Your task to perform on an android device: Open internet settings Image 0: 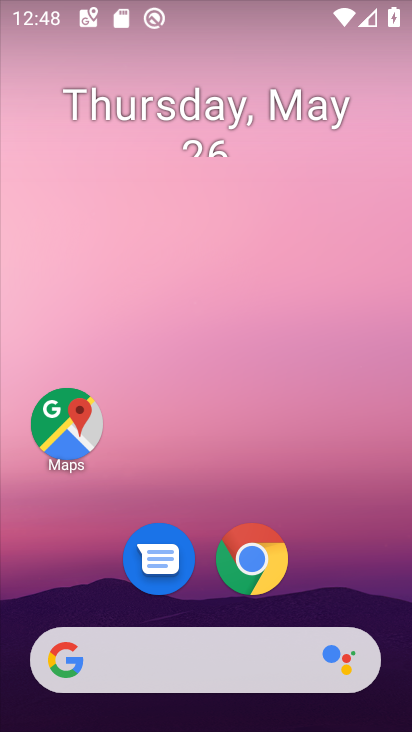
Step 0: press home button
Your task to perform on an android device: Open internet settings Image 1: 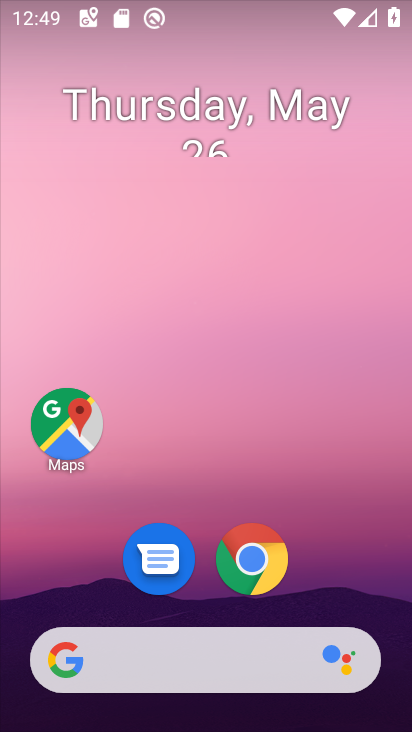
Step 1: drag from (322, 602) to (281, 0)
Your task to perform on an android device: Open internet settings Image 2: 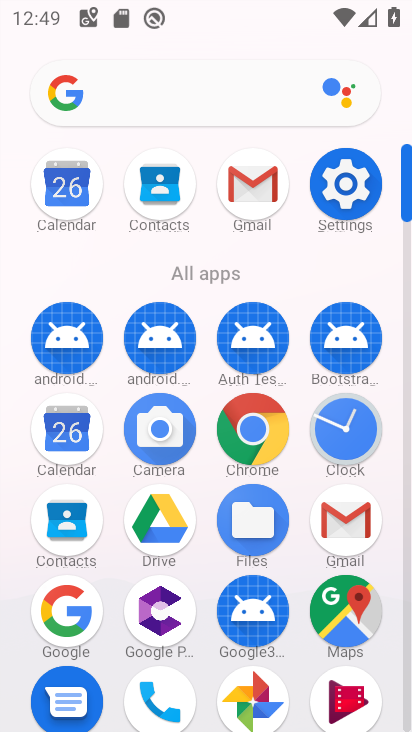
Step 2: click (343, 196)
Your task to perform on an android device: Open internet settings Image 3: 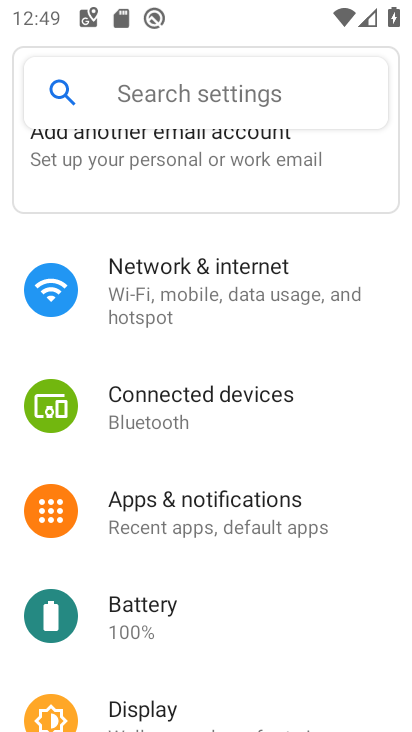
Step 3: click (182, 272)
Your task to perform on an android device: Open internet settings Image 4: 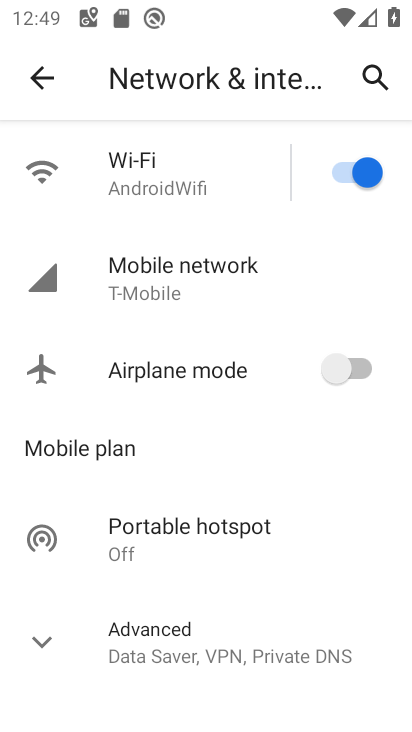
Step 4: task complete